Your task to perform on an android device: Find coffee shops on Maps Image 0: 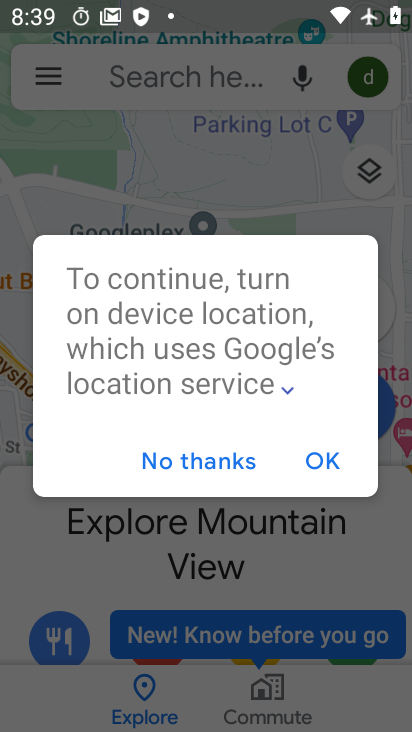
Step 0: click (199, 455)
Your task to perform on an android device: Find coffee shops on Maps Image 1: 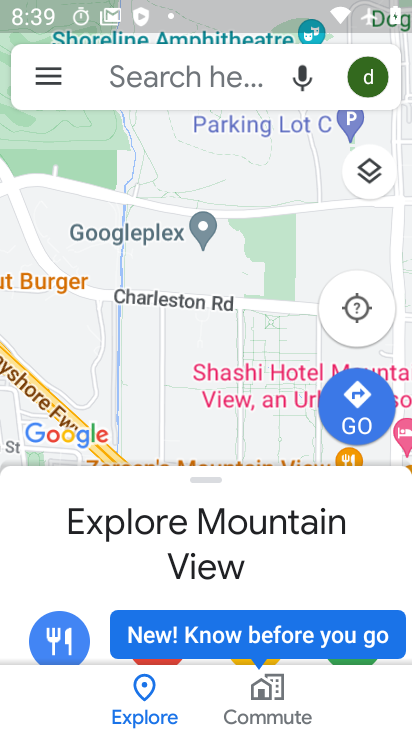
Step 1: click (174, 81)
Your task to perform on an android device: Find coffee shops on Maps Image 2: 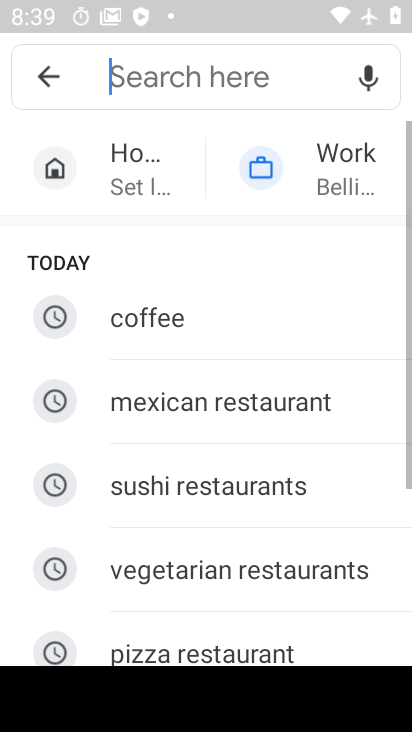
Step 2: click (165, 327)
Your task to perform on an android device: Find coffee shops on Maps Image 3: 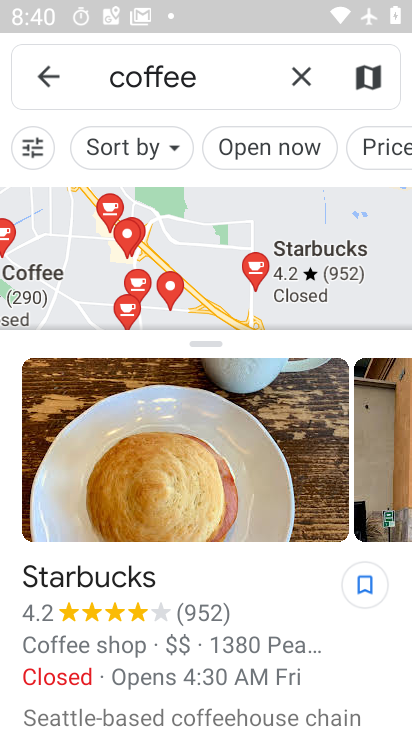
Step 3: task complete